Your task to perform on an android device: turn on priority inbox in the gmail app Image 0: 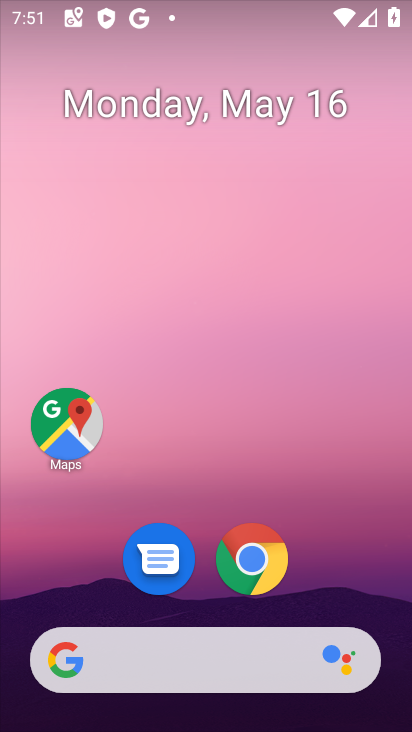
Step 0: drag from (389, 582) to (376, 74)
Your task to perform on an android device: turn on priority inbox in the gmail app Image 1: 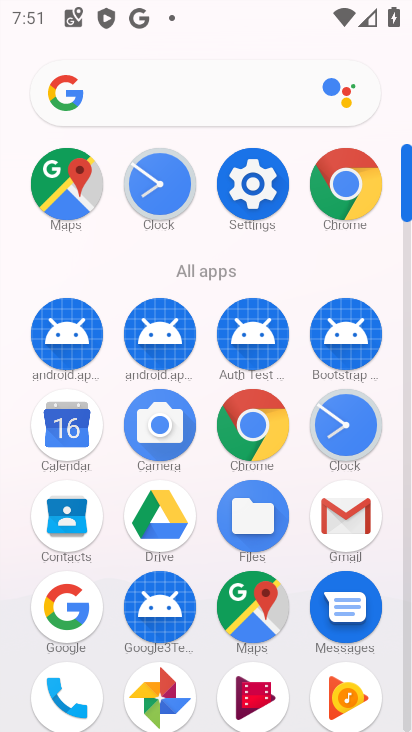
Step 1: click (349, 526)
Your task to perform on an android device: turn on priority inbox in the gmail app Image 2: 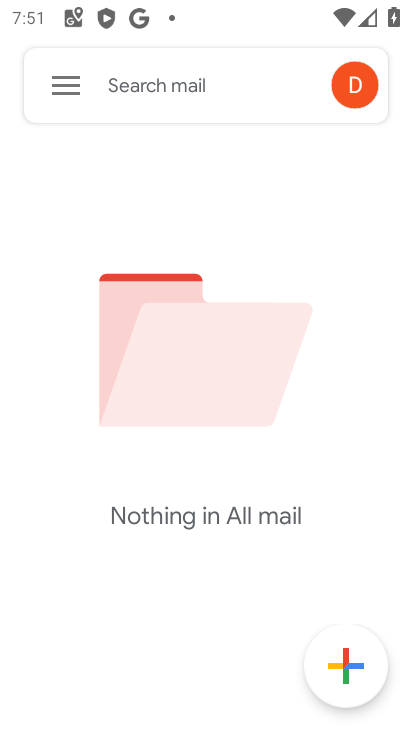
Step 2: click (19, 91)
Your task to perform on an android device: turn on priority inbox in the gmail app Image 3: 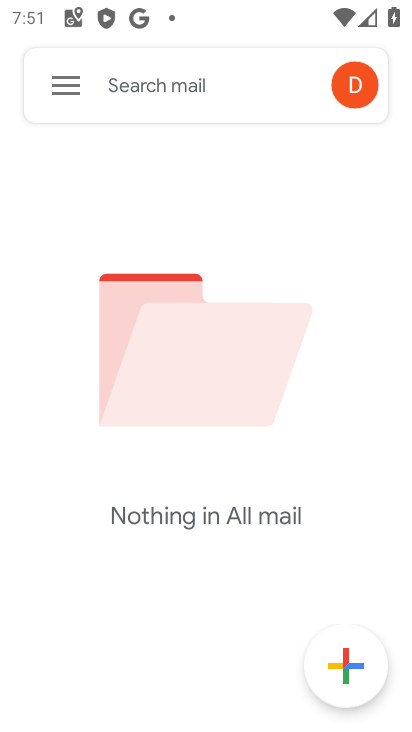
Step 3: click (57, 91)
Your task to perform on an android device: turn on priority inbox in the gmail app Image 4: 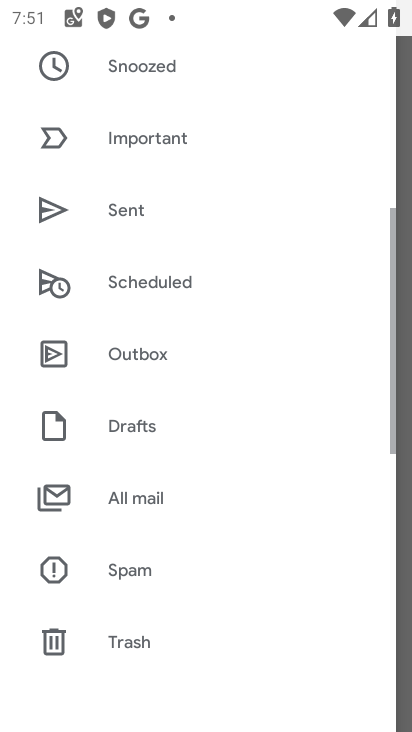
Step 4: drag from (203, 640) to (249, 168)
Your task to perform on an android device: turn on priority inbox in the gmail app Image 5: 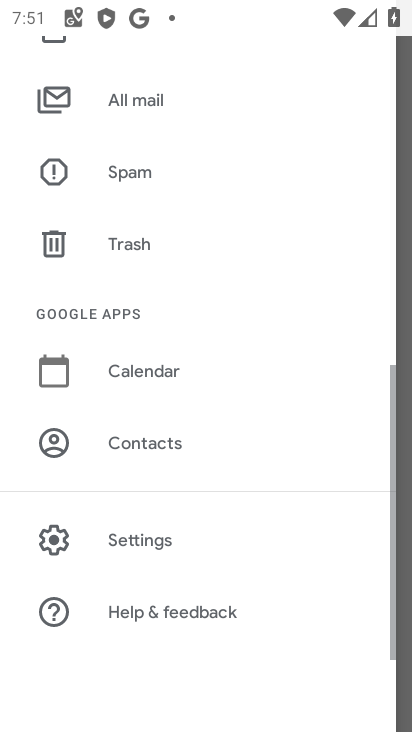
Step 5: click (157, 537)
Your task to perform on an android device: turn on priority inbox in the gmail app Image 6: 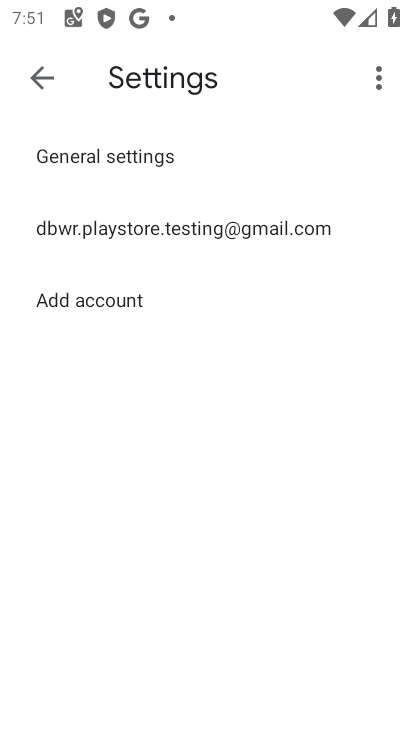
Step 6: click (123, 226)
Your task to perform on an android device: turn on priority inbox in the gmail app Image 7: 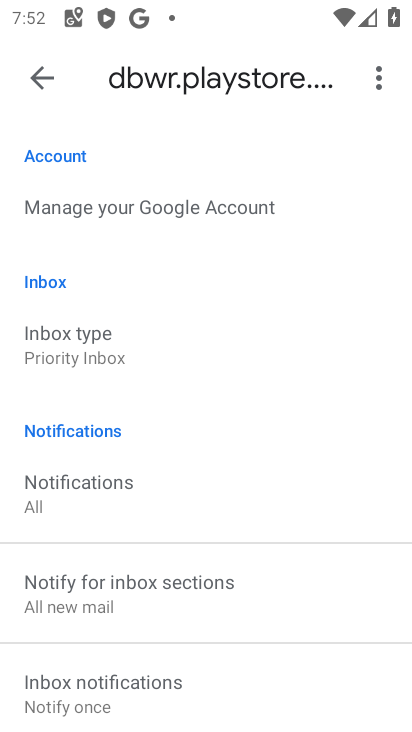
Step 7: click (112, 336)
Your task to perform on an android device: turn on priority inbox in the gmail app Image 8: 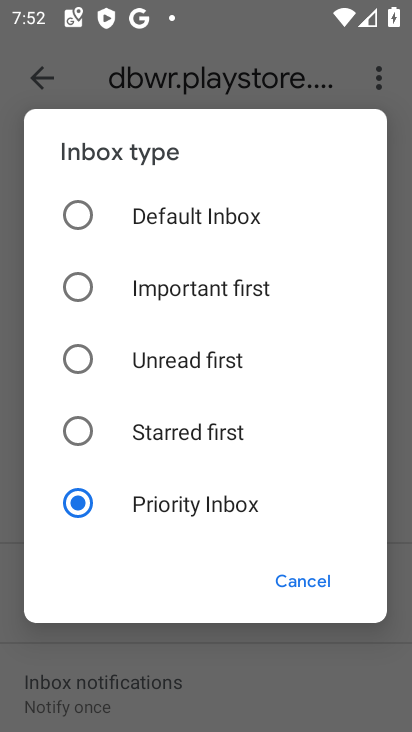
Step 8: task complete